Your task to perform on an android device: Open Wikipedia Image 0: 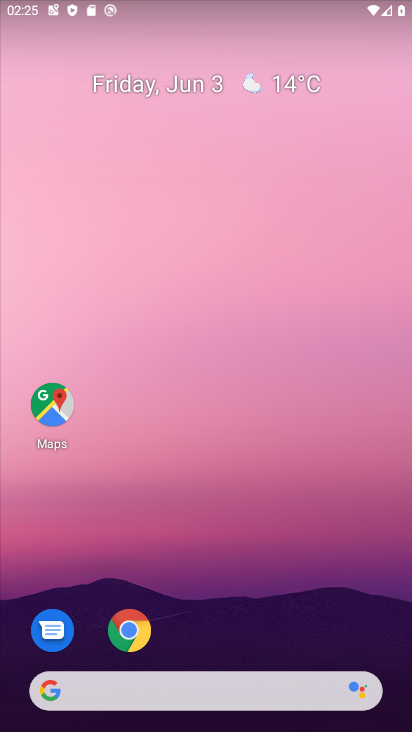
Step 0: click (119, 628)
Your task to perform on an android device: Open Wikipedia Image 1: 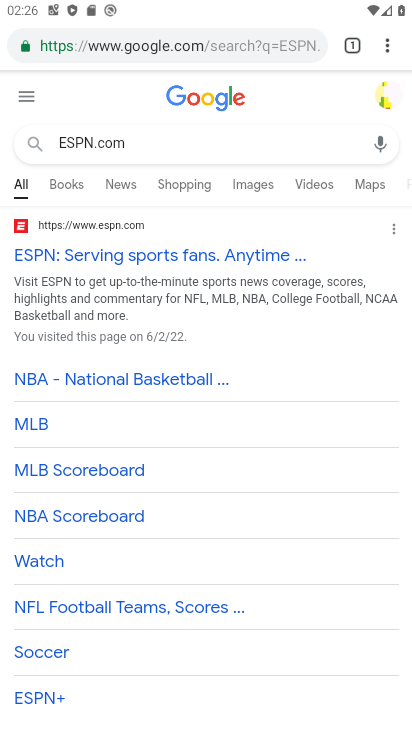
Step 1: click (309, 42)
Your task to perform on an android device: Open Wikipedia Image 2: 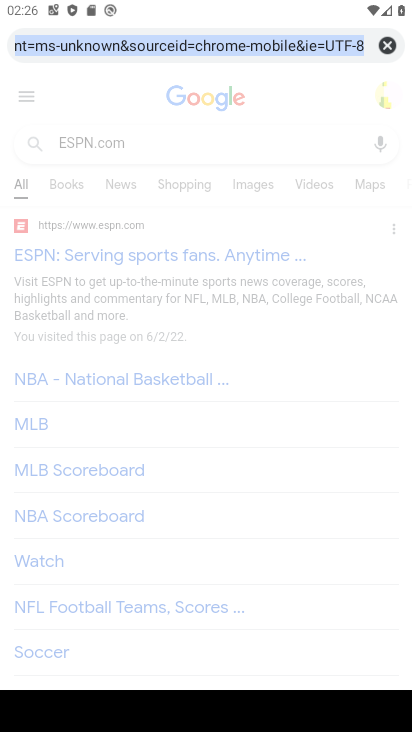
Step 2: click (386, 44)
Your task to perform on an android device: Open Wikipedia Image 3: 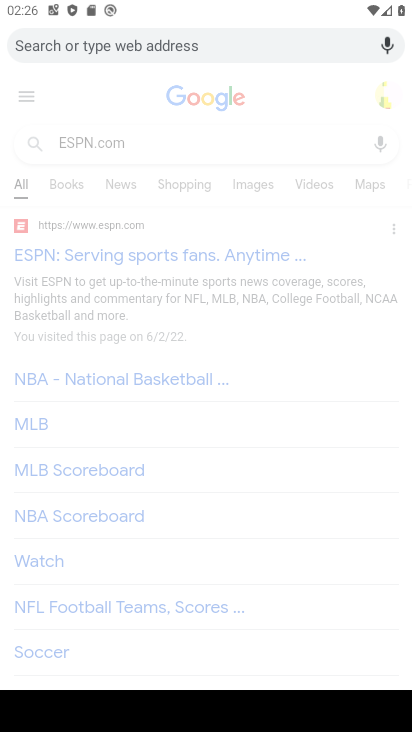
Step 3: type " Wikipedia"
Your task to perform on an android device: Open Wikipedia Image 4: 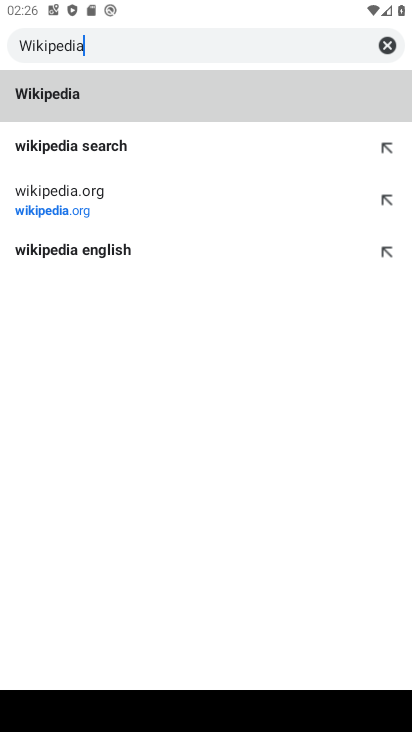
Step 4: click (66, 80)
Your task to perform on an android device: Open Wikipedia Image 5: 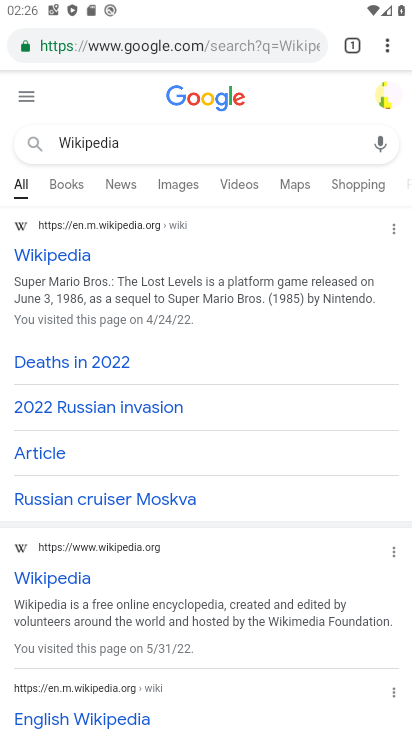
Step 5: task complete